Your task to perform on an android device: delete a single message in the gmail app Image 0: 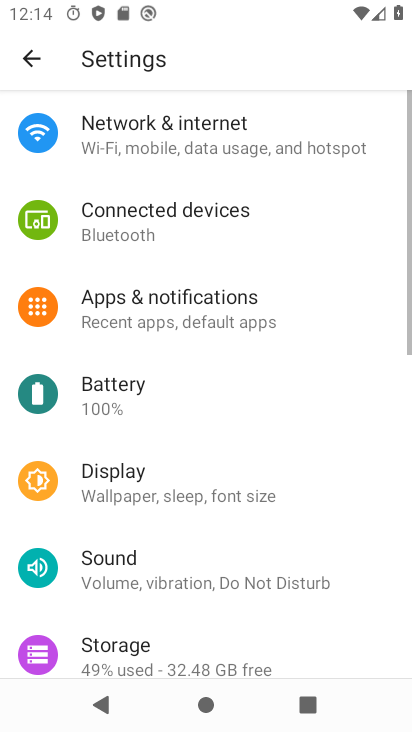
Step 0: press home button
Your task to perform on an android device: delete a single message in the gmail app Image 1: 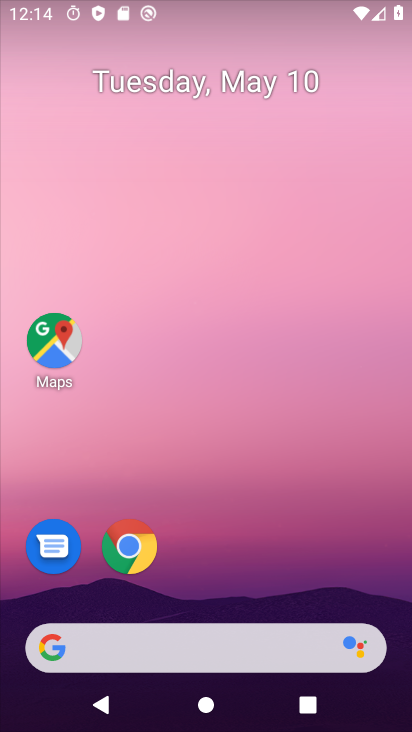
Step 1: drag from (266, 565) to (272, 194)
Your task to perform on an android device: delete a single message in the gmail app Image 2: 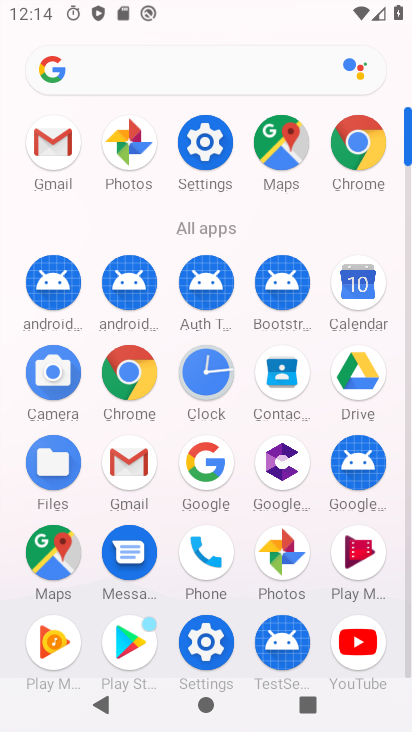
Step 2: click (107, 481)
Your task to perform on an android device: delete a single message in the gmail app Image 3: 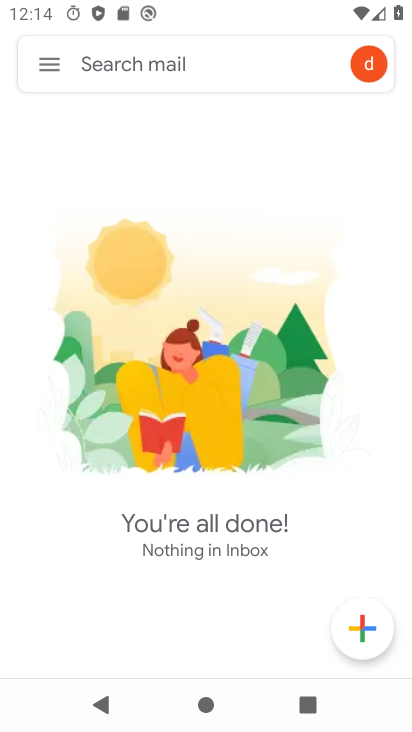
Step 3: click (40, 67)
Your task to perform on an android device: delete a single message in the gmail app Image 4: 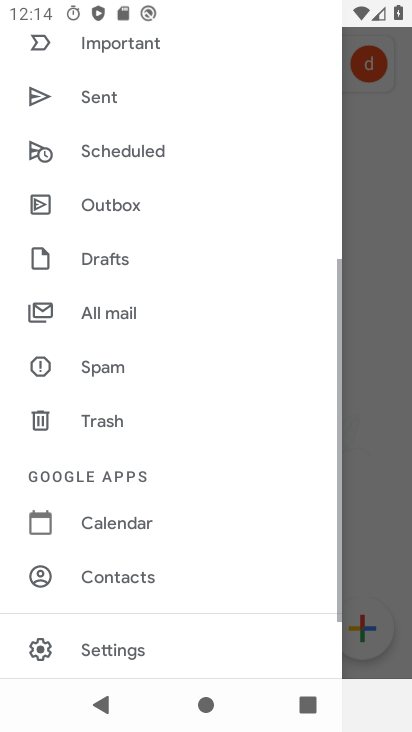
Step 4: task complete